Your task to perform on an android device: Go to Maps Image 0: 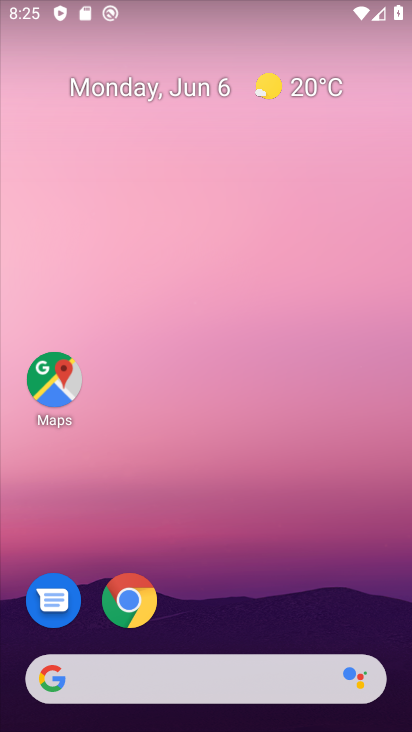
Step 0: click (65, 365)
Your task to perform on an android device: Go to Maps Image 1: 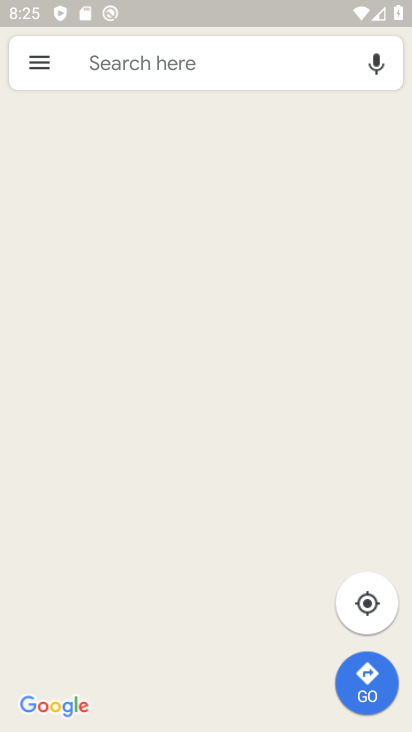
Step 1: task complete